Your task to perform on an android device: Open Chrome and go to settings Image 0: 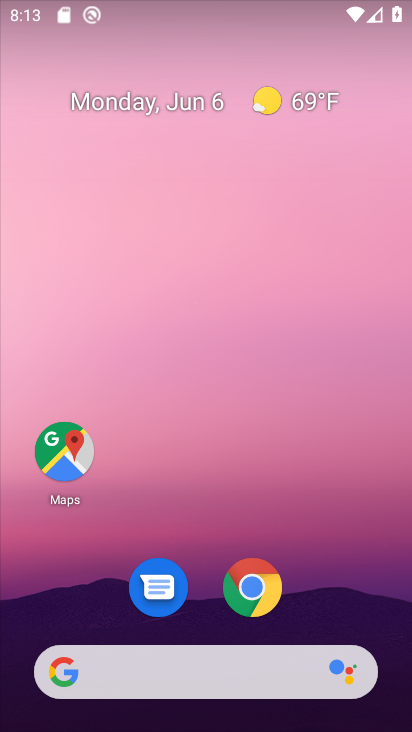
Step 0: drag from (322, 281) to (322, 115)
Your task to perform on an android device: Open Chrome and go to settings Image 1: 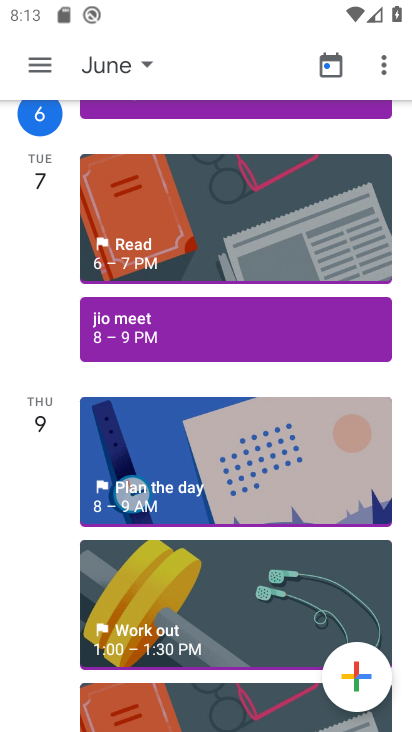
Step 1: press home button
Your task to perform on an android device: Open Chrome and go to settings Image 2: 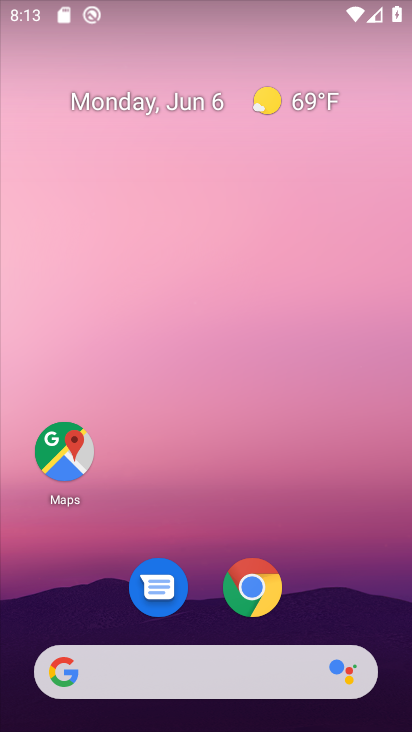
Step 2: drag from (348, 573) to (330, 195)
Your task to perform on an android device: Open Chrome and go to settings Image 3: 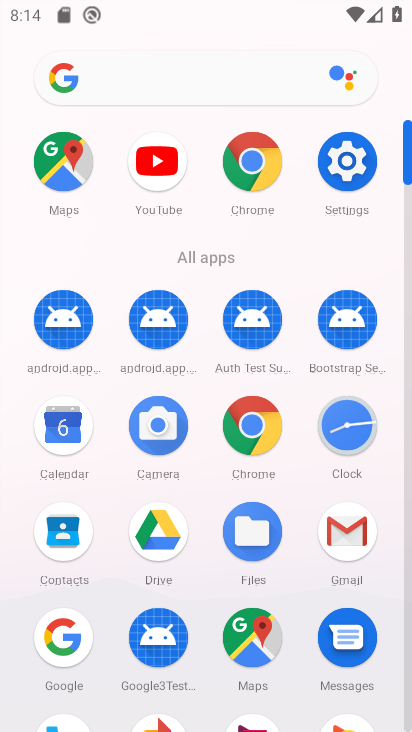
Step 3: click (241, 433)
Your task to perform on an android device: Open Chrome and go to settings Image 4: 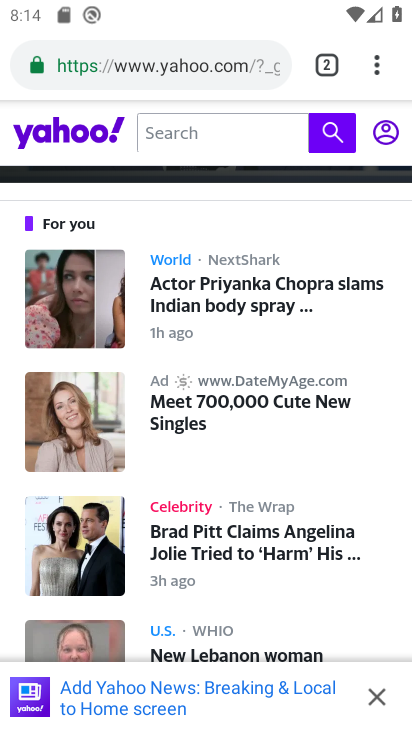
Step 4: click (383, 68)
Your task to perform on an android device: Open Chrome and go to settings Image 5: 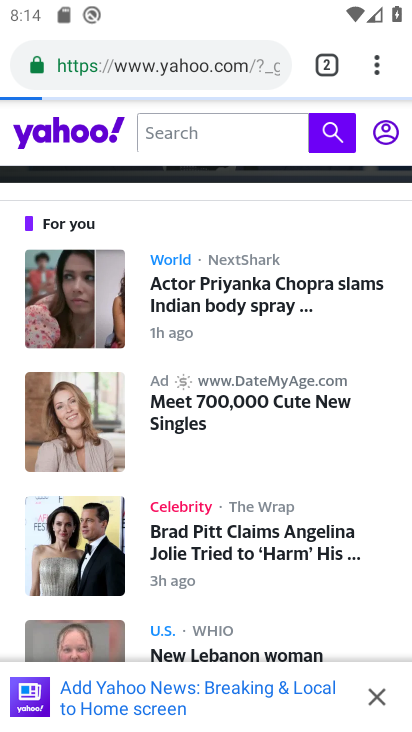
Step 5: drag from (377, 69) to (233, 638)
Your task to perform on an android device: Open Chrome and go to settings Image 6: 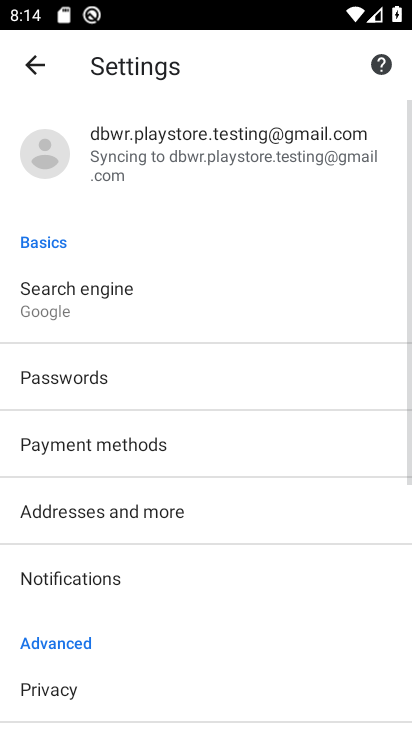
Step 6: drag from (232, 636) to (261, 308)
Your task to perform on an android device: Open Chrome and go to settings Image 7: 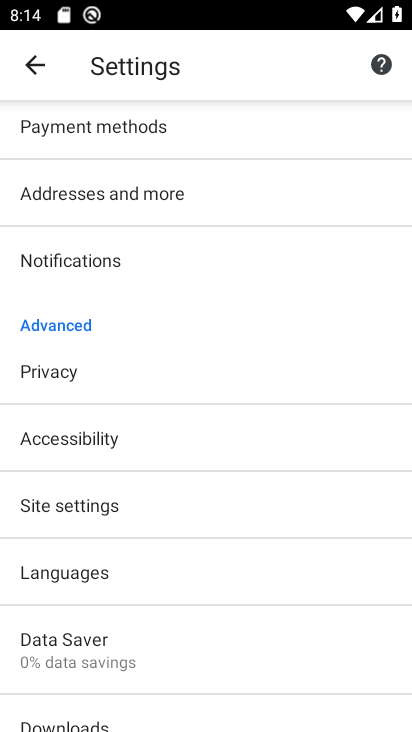
Step 7: drag from (228, 582) to (242, 317)
Your task to perform on an android device: Open Chrome and go to settings Image 8: 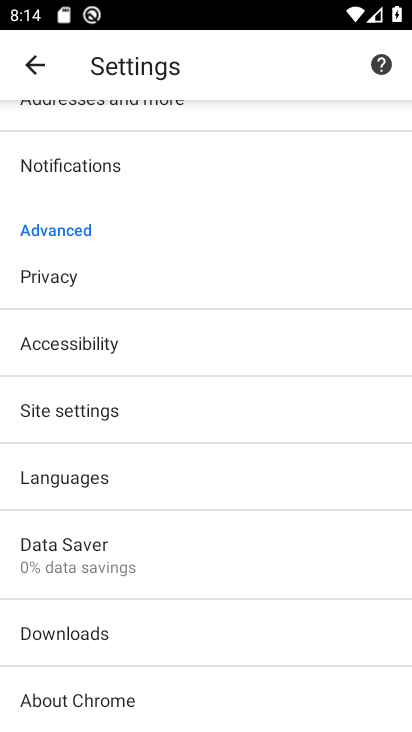
Step 8: click (126, 418)
Your task to perform on an android device: Open Chrome and go to settings Image 9: 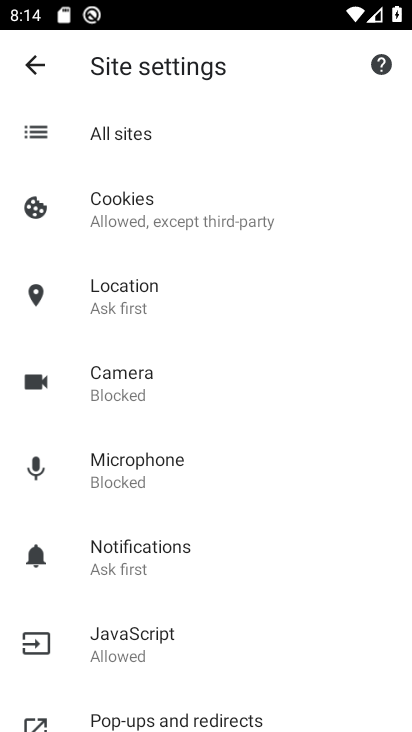
Step 9: task complete